Your task to perform on an android device: Turn on the flashlight Image 0: 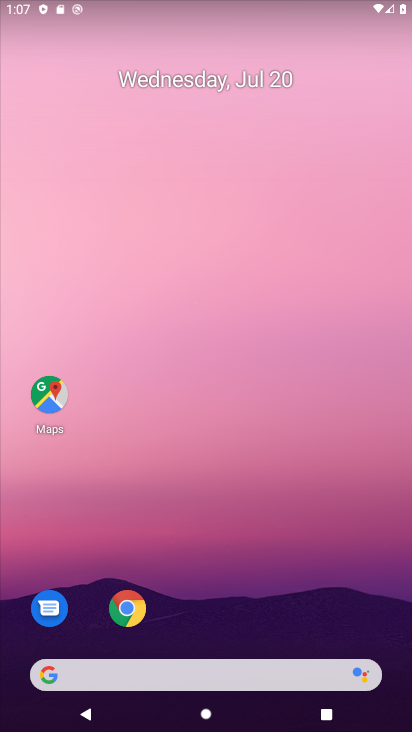
Step 0: drag from (256, 623) to (285, 7)
Your task to perform on an android device: Turn on the flashlight Image 1: 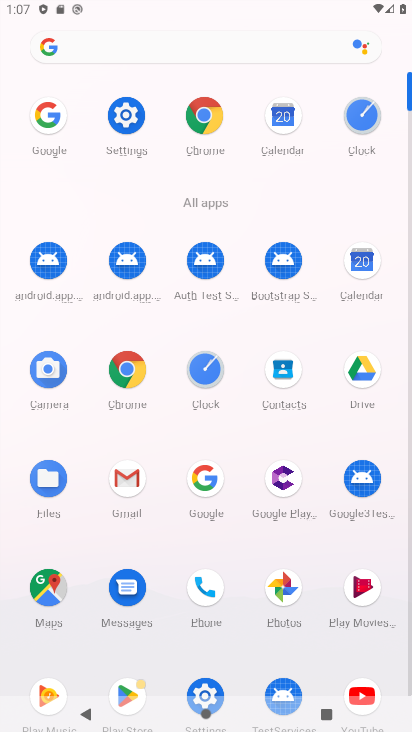
Step 1: click (133, 134)
Your task to perform on an android device: Turn on the flashlight Image 2: 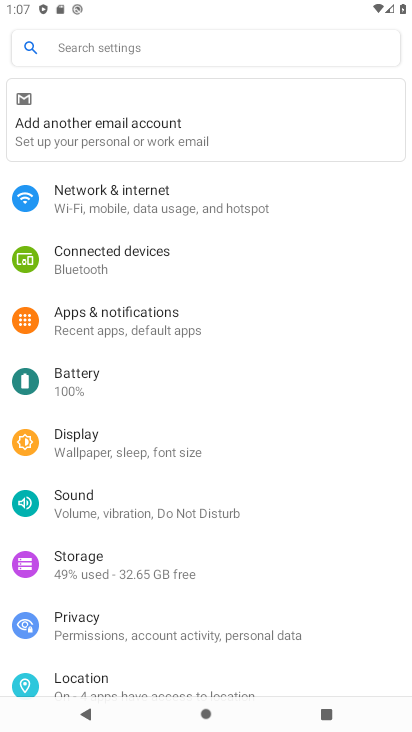
Step 2: task complete